Your task to perform on an android device: toggle pop-ups in chrome Image 0: 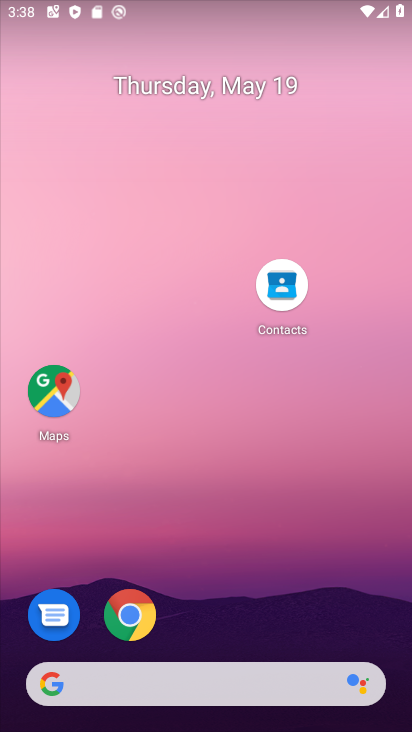
Step 0: click (131, 626)
Your task to perform on an android device: toggle pop-ups in chrome Image 1: 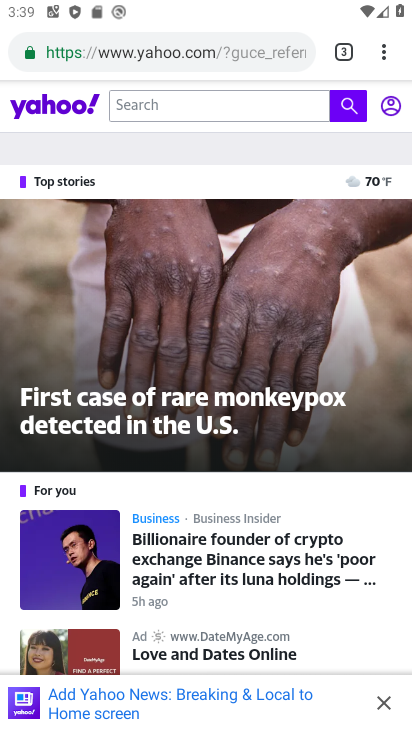
Step 1: click (392, 48)
Your task to perform on an android device: toggle pop-ups in chrome Image 2: 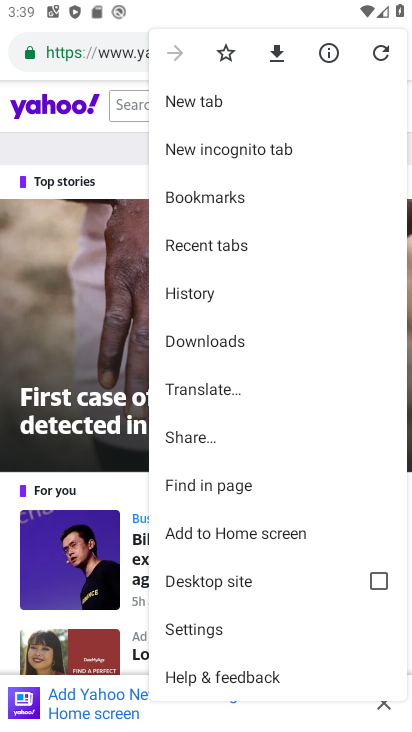
Step 2: click (251, 632)
Your task to perform on an android device: toggle pop-ups in chrome Image 3: 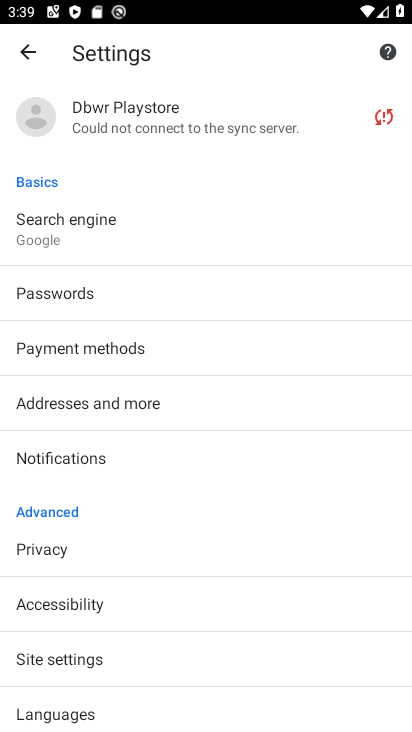
Step 3: drag from (142, 583) to (186, 325)
Your task to perform on an android device: toggle pop-ups in chrome Image 4: 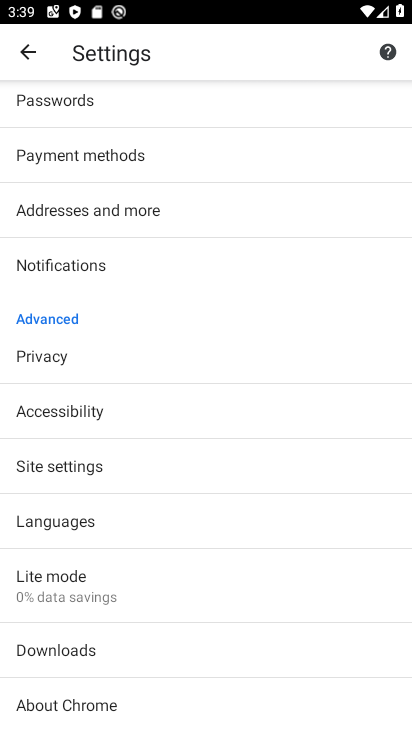
Step 4: click (85, 473)
Your task to perform on an android device: toggle pop-ups in chrome Image 5: 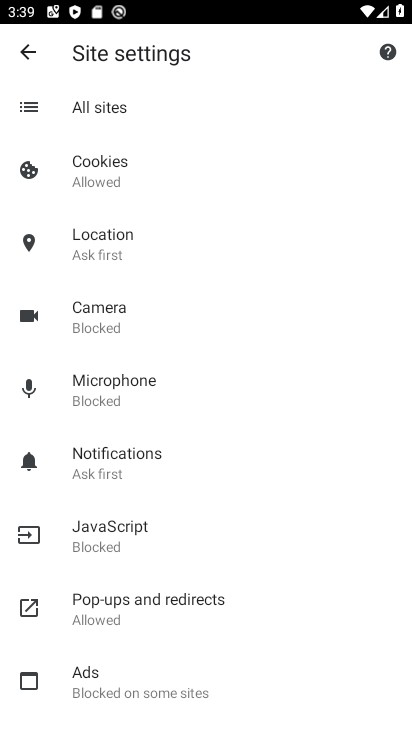
Step 5: click (135, 610)
Your task to perform on an android device: toggle pop-ups in chrome Image 6: 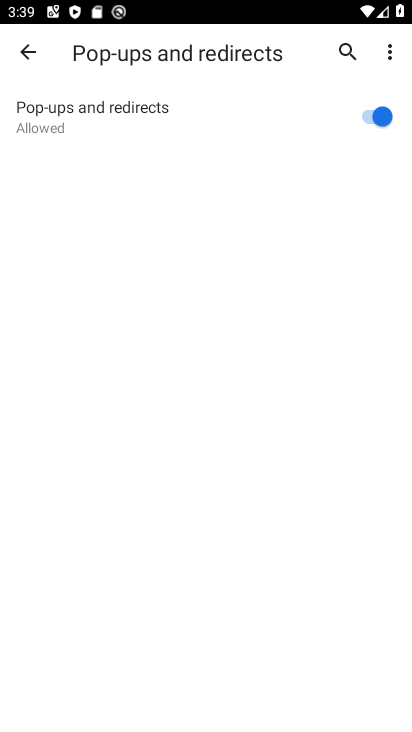
Step 6: click (382, 120)
Your task to perform on an android device: toggle pop-ups in chrome Image 7: 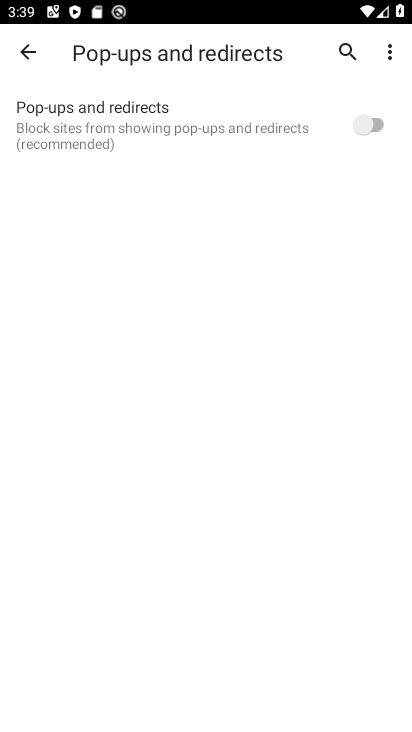
Step 7: task complete